Your task to perform on an android device: Open Google Maps Image 0: 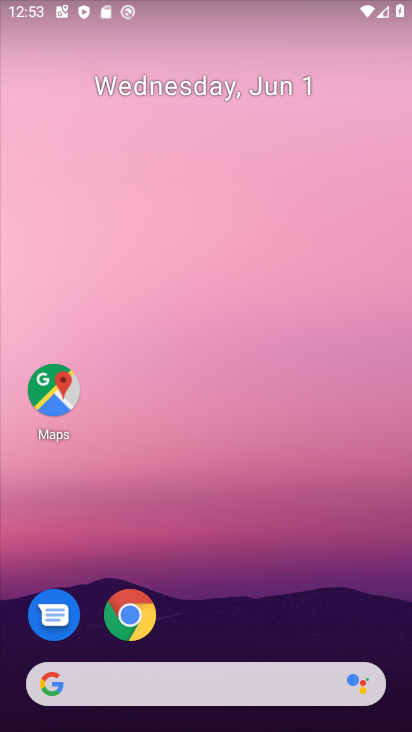
Step 0: task complete